Your task to perform on an android device: turn on improve location accuracy Image 0: 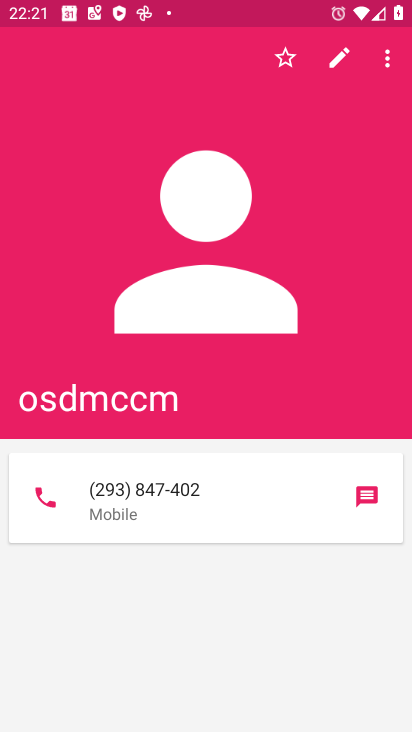
Step 0: press home button
Your task to perform on an android device: turn on improve location accuracy Image 1: 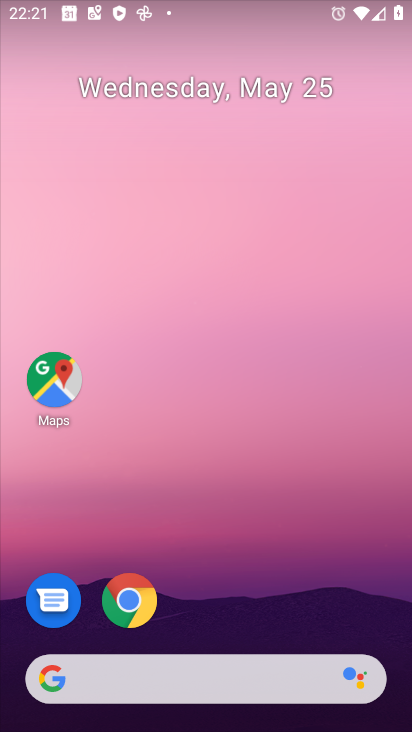
Step 1: drag from (292, 509) to (275, 171)
Your task to perform on an android device: turn on improve location accuracy Image 2: 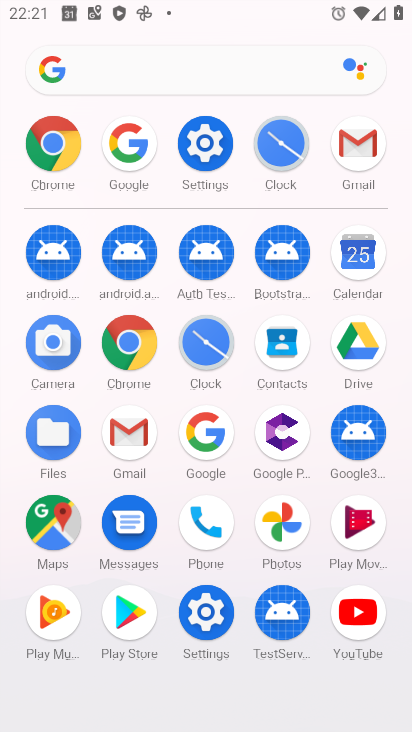
Step 2: click (192, 150)
Your task to perform on an android device: turn on improve location accuracy Image 3: 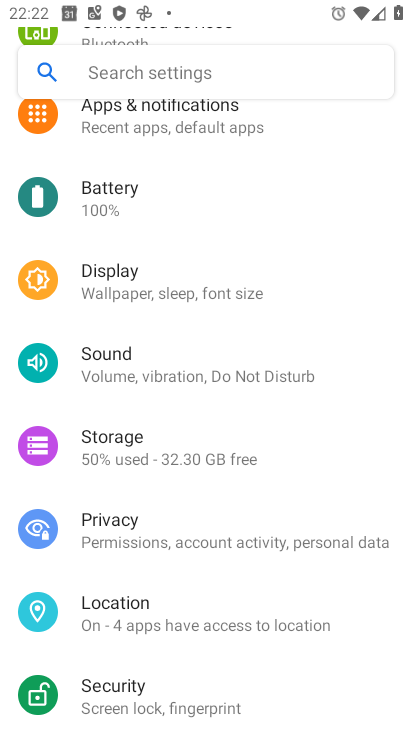
Step 3: drag from (241, 481) to (279, 200)
Your task to perform on an android device: turn on improve location accuracy Image 4: 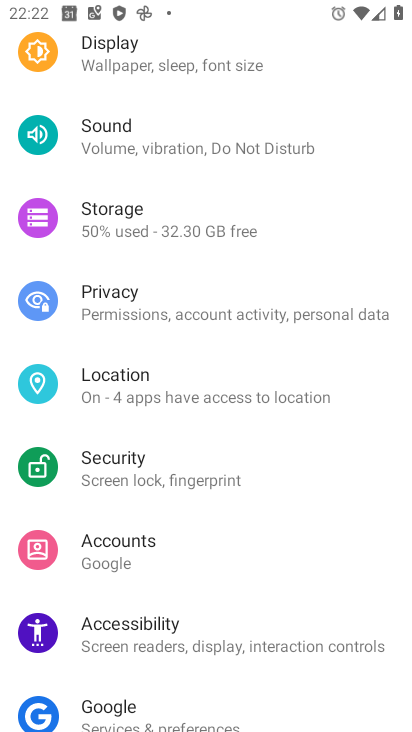
Step 4: drag from (269, 575) to (300, 155)
Your task to perform on an android device: turn on improve location accuracy Image 5: 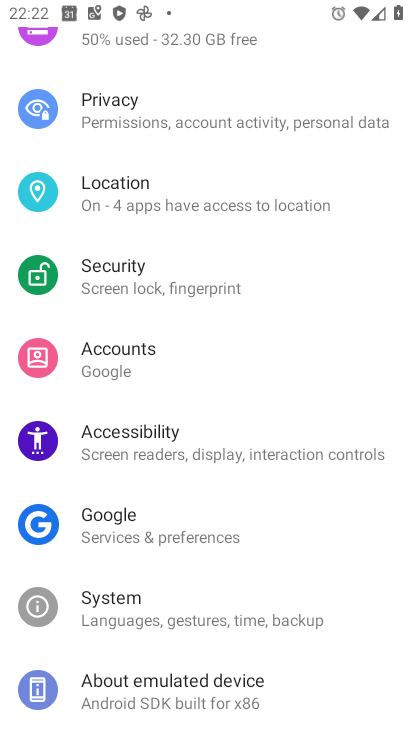
Step 5: drag from (247, 169) to (213, 547)
Your task to perform on an android device: turn on improve location accuracy Image 6: 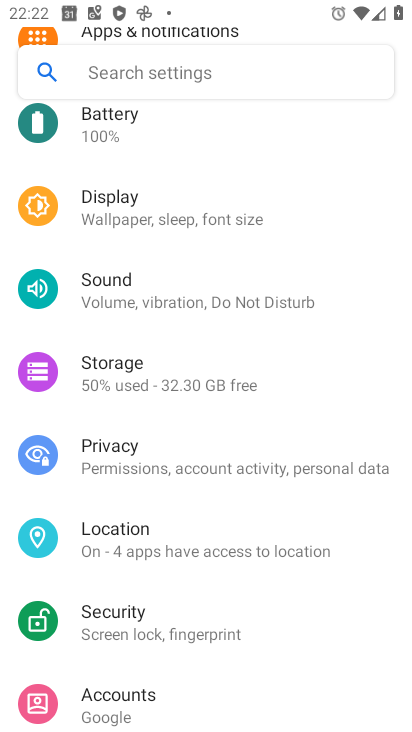
Step 6: click (131, 534)
Your task to perform on an android device: turn on improve location accuracy Image 7: 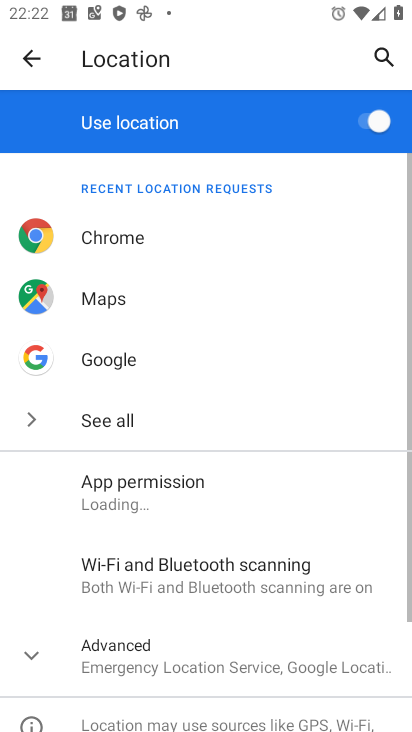
Step 7: drag from (258, 634) to (321, 297)
Your task to perform on an android device: turn on improve location accuracy Image 8: 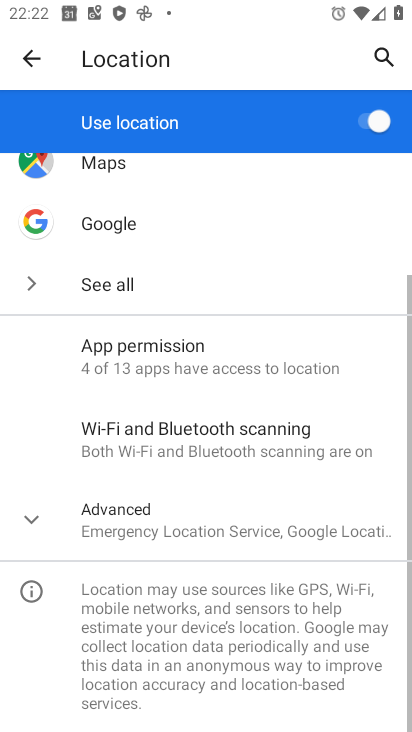
Step 8: click (313, 527)
Your task to perform on an android device: turn on improve location accuracy Image 9: 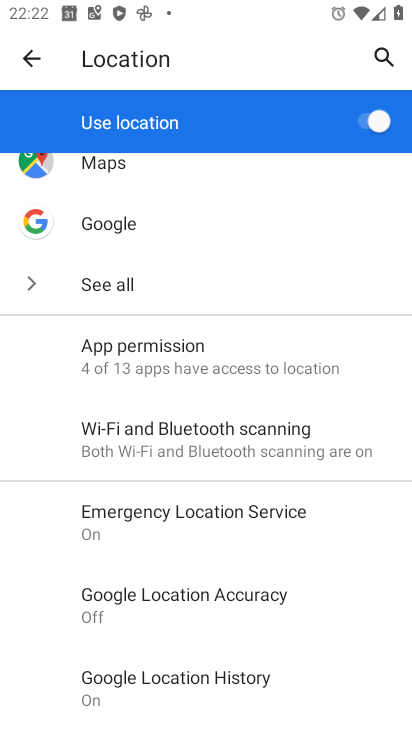
Step 9: drag from (317, 573) to (351, 254)
Your task to perform on an android device: turn on improve location accuracy Image 10: 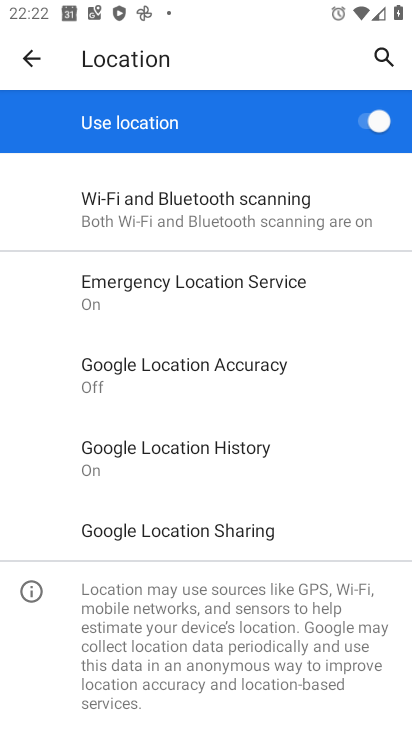
Step 10: click (216, 362)
Your task to perform on an android device: turn on improve location accuracy Image 11: 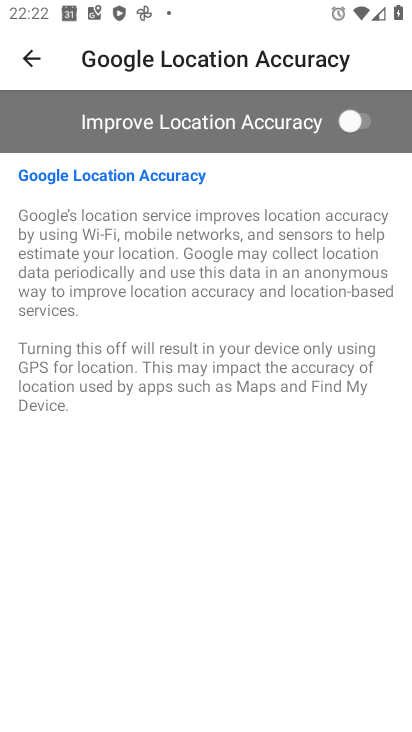
Step 11: click (366, 115)
Your task to perform on an android device: turn on improve location accuracy Image 12: 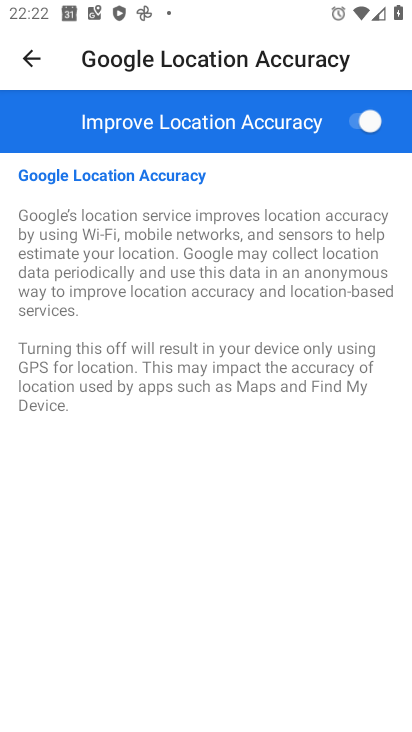
Step 12: task complete